Your task to perform on an android device: turn off notifications in google photos Image 0: 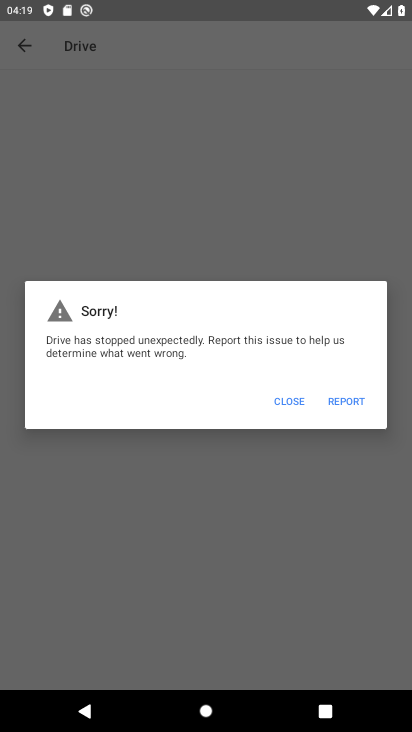
Step 0: click (292, 401)
Your task to perform on an android device: turn off notifications in google photos Image 1: 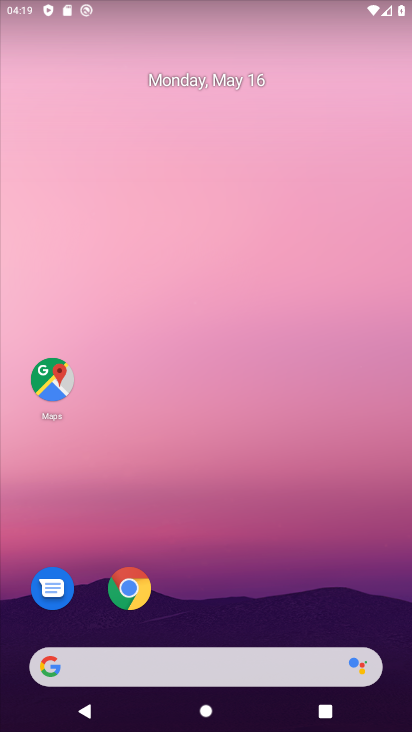
Step 1: drag from (263, 534) to (235, 4)
Your task to perform on an android device: turn off notifications in google photos Image 2: 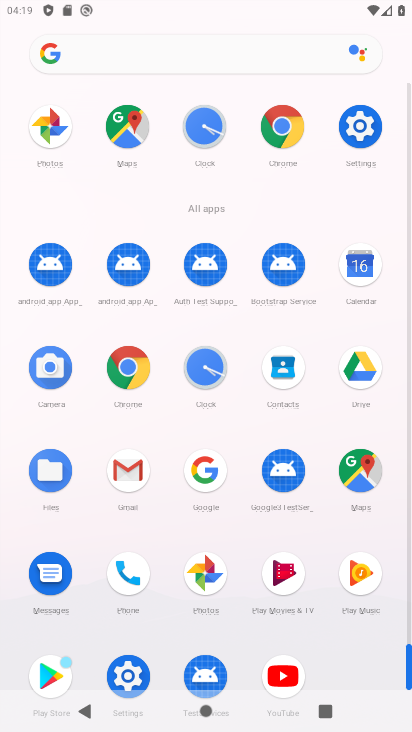
Step 2: drag from (8, 546) to (17, 220)
Your task to perform on an android device: turn off notifications in google photos Image 3: 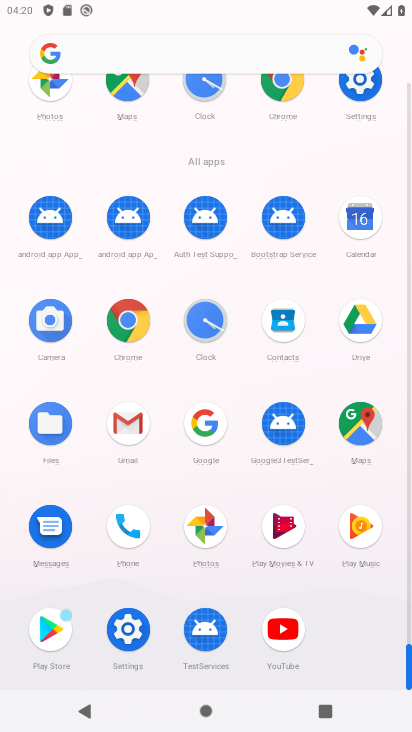
Step 3: click (200, 522)
Your task to perform on an android device: turn off notifications in google photos Image 4: 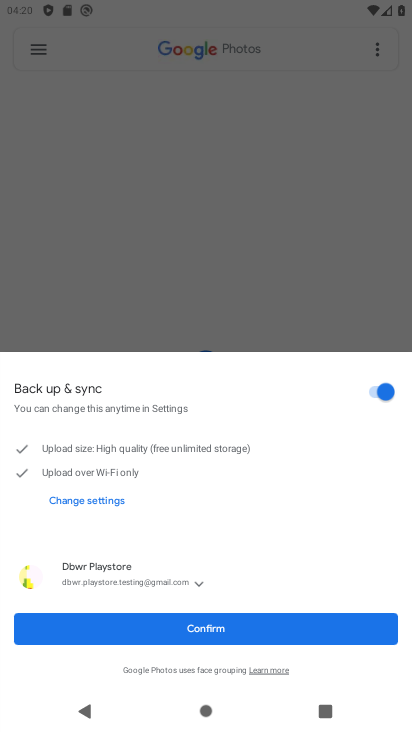
Step 4: click (241, 638)
Your task to perform on an android device: turn off notifications in google photos Image 5: 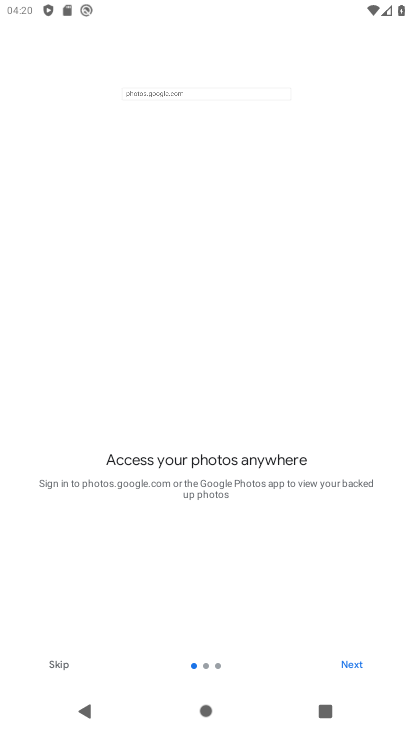
Step 5: click (347, 667)
Your task to perform on an android device: turn off notifications in google photos Image 6: 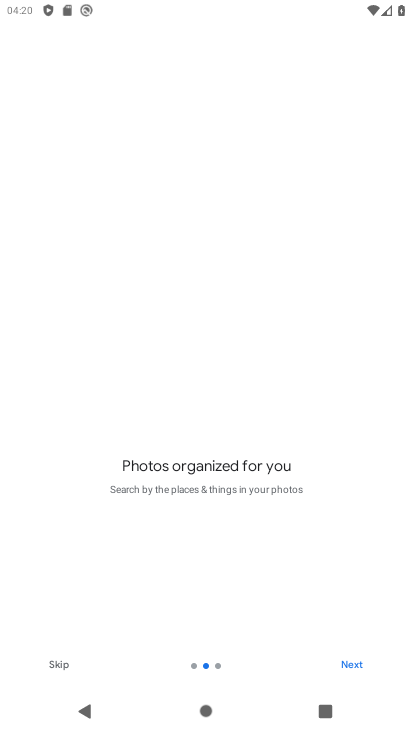
Step 6: click (347, 667)
Your task to perform on an android device: turn off notifications in google photos Image 7: 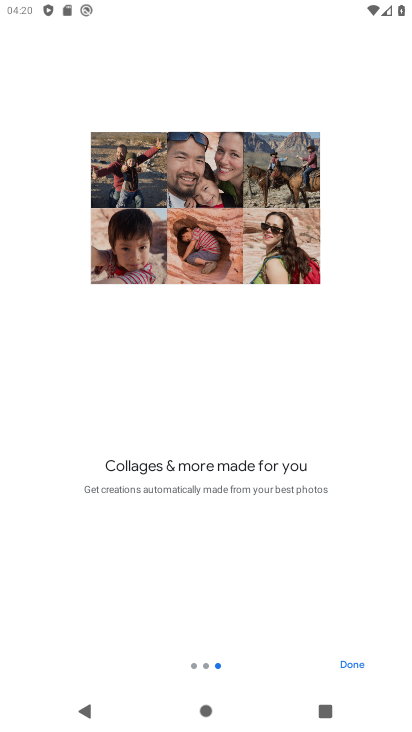
Step 7: click (347, 667)
Your task to perform on an android device: turn off notifications in google photos Image 8: 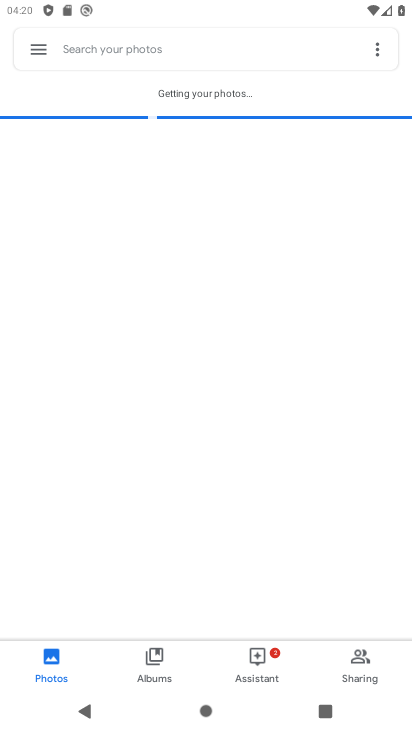
Step 8: click (50, 52)
Your task to perform on an android device: turn off notifications in google photos Image 9: 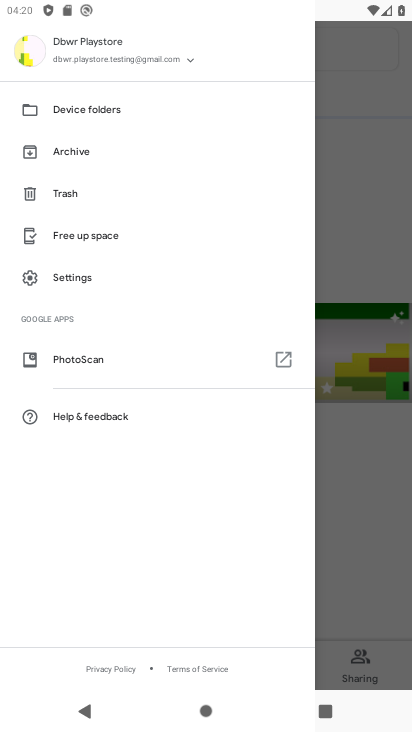
Step 9: click (83, 267)
Your task to perform on an android device: turn off notifications in google photos Image 10: 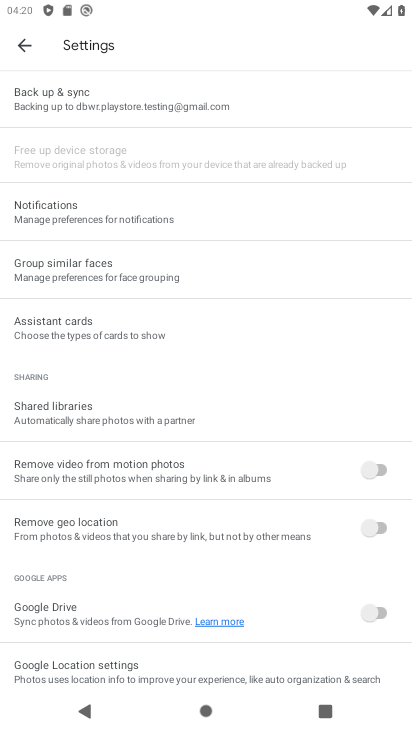
Step 10: click (148, 209)
Your task to perform on an android device: turn off notifications in google photos Image 11: 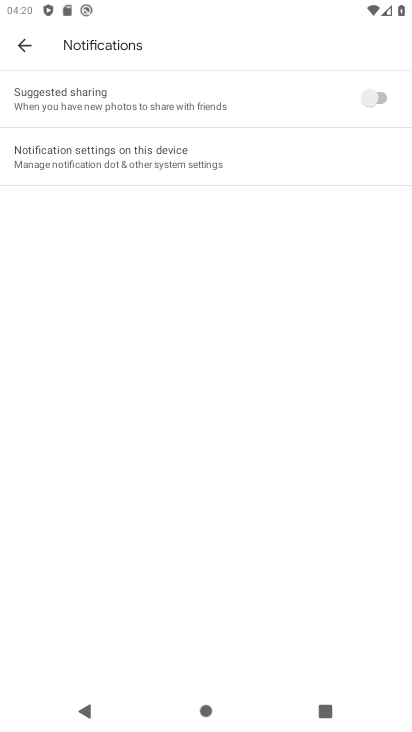
Step 11: click (154, 168)
Your task to perform on an android device: turn off notifications in google photos Image 12: 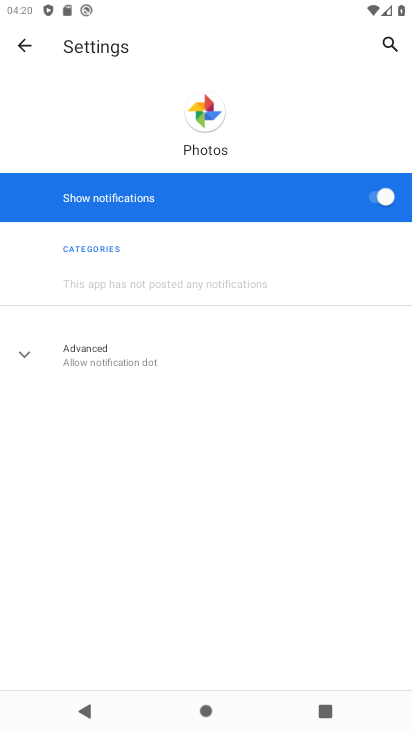
Step 12: click (382, 195)
Your task to perform on an android device: turn off notifications in google photos Image 13: 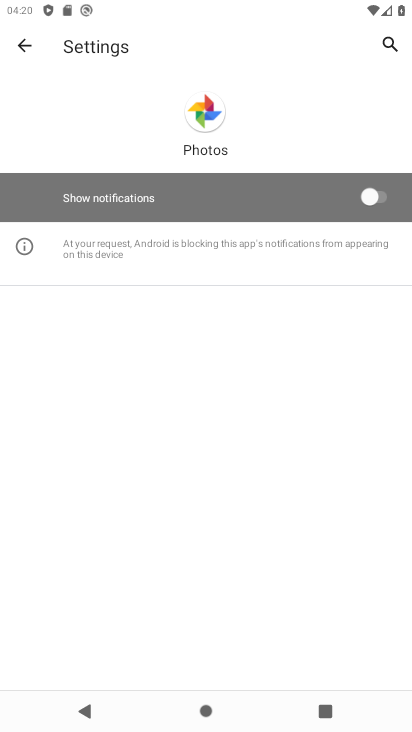
Step 13: task complete